Your task to perform on an android device: What's the weather today? Image 0: 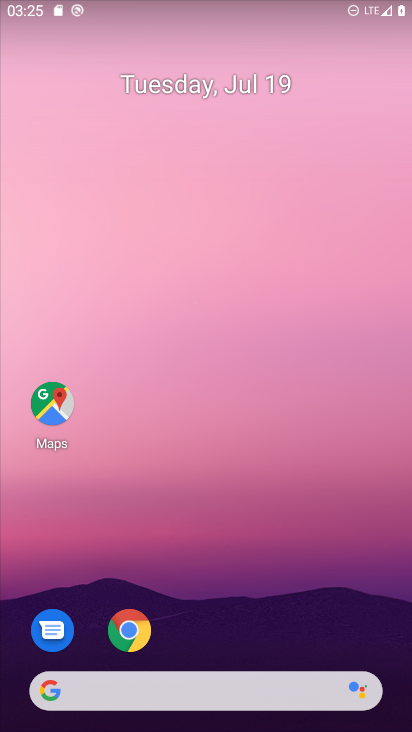
Step 0: drag from (4, 280) to (368, 271)
Your task to perform on an android device: What's the weather today? Image 1: 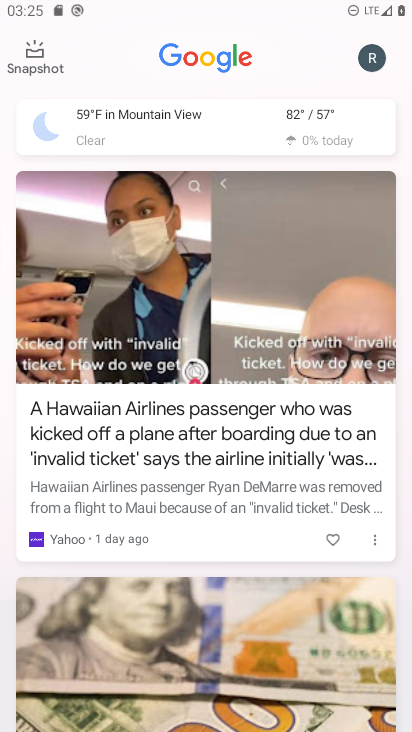
Step 1: click (301, 111)
Your task to perform on an android device: What's the weather today? Image 2: 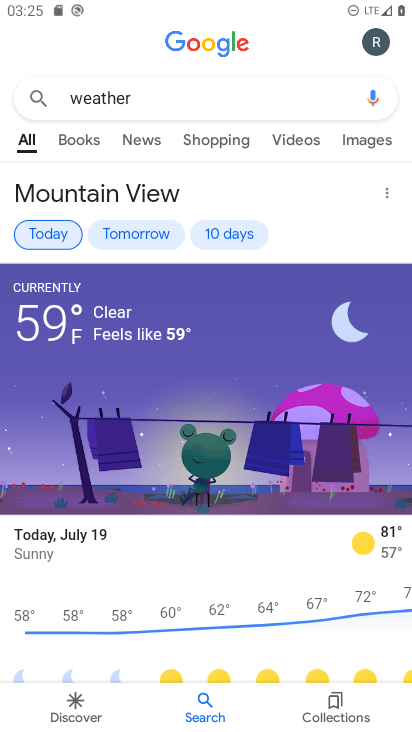
Step 2: task complete